Your task to perform on an android device: Show the shopping cart on costco. Add usb-b to the cart on costco Image 0: 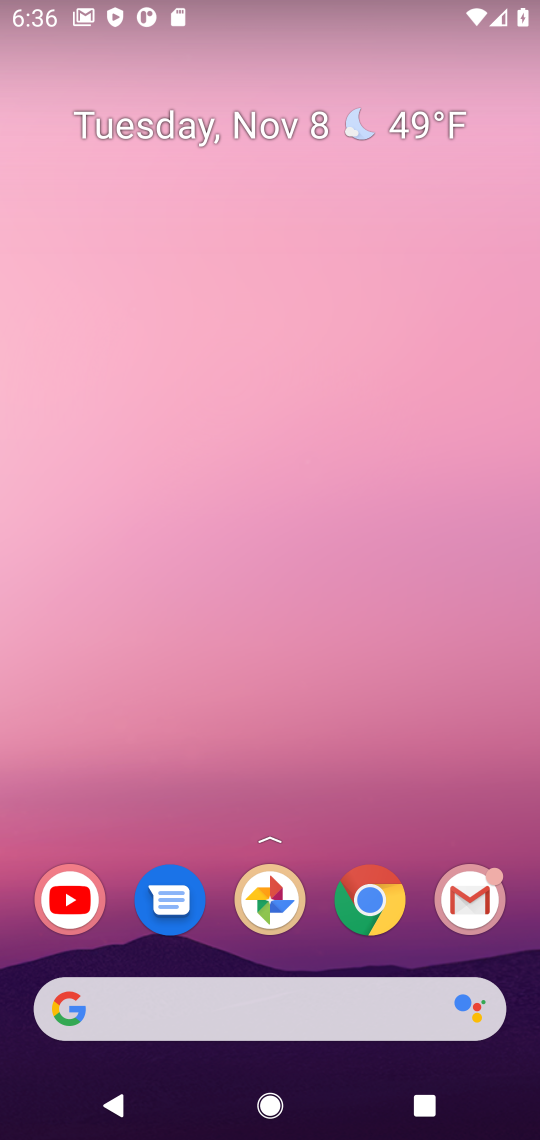
Step 0: click (323, 713)
Your task to perform on an android device: Show the shopping cart on costco. Add usb-b to the cart on costco Image 1: 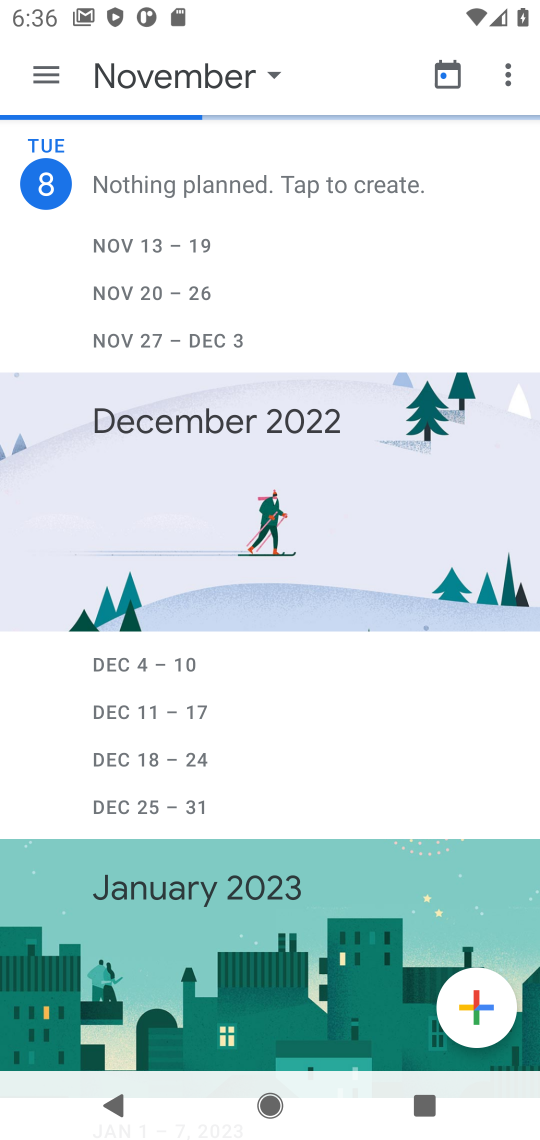
Step 1: click (387, 916)
Your task to perform on an android device: Show the shopping cart on costco. Add usb-b to the cart on costco Image 2: 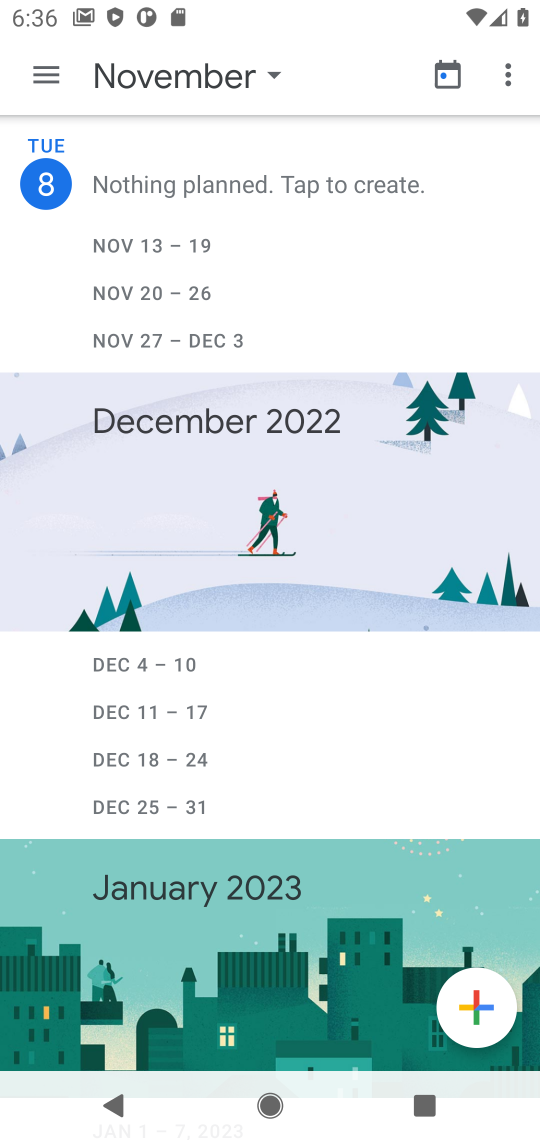
Step 2: press home button
Your task to perform on an android device: Show the shopping cart on costco. Add usb-b to the cart on costco Image 3: 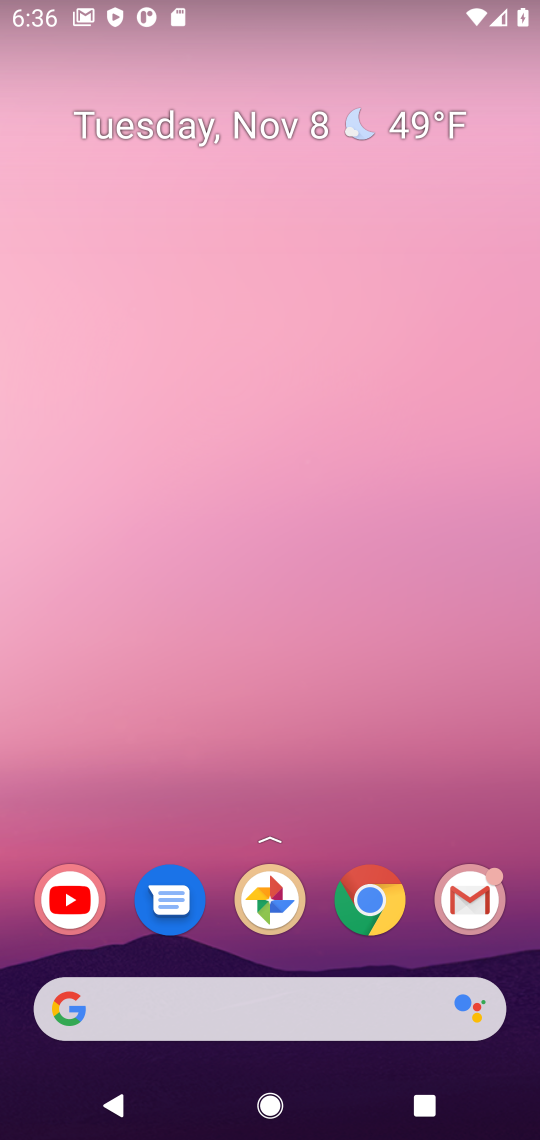
Step 3: click (392, 902)
Your task to perform on an android device: Show the shopping cart on costco. Add usb-b to the cart on costco Image 4: 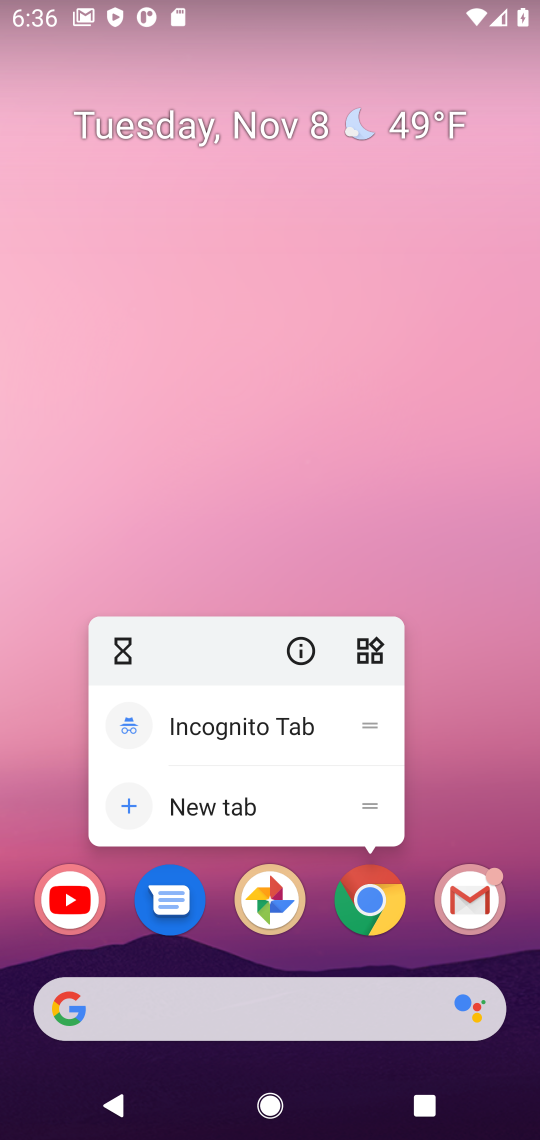
Step 4: click (373, 900)
Your task to perform on an android device: Show the shopping cart on costco. Add usb-b to the cart on costco Image 5: 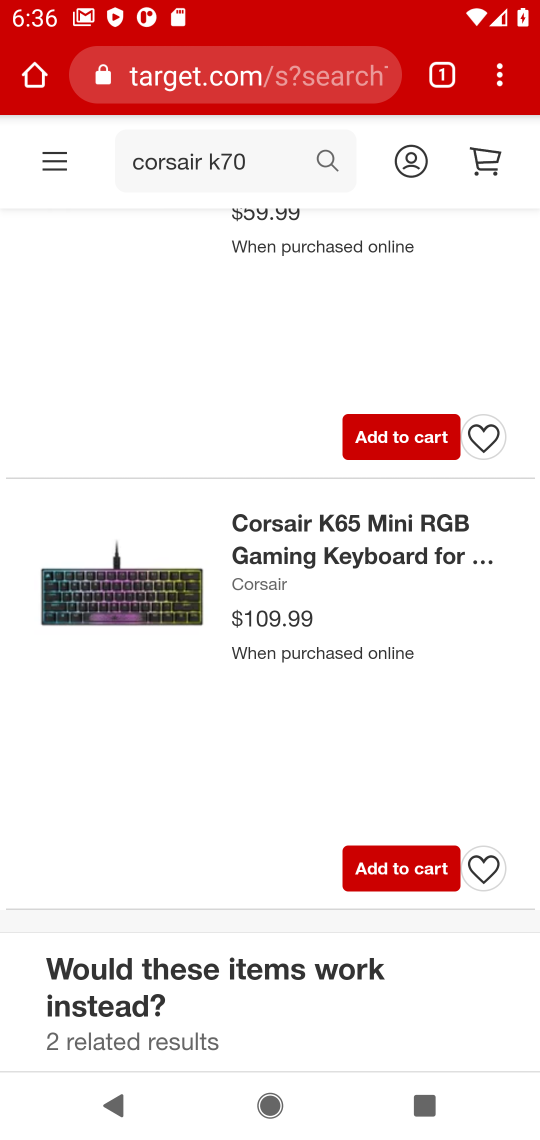
Step 5: click (279, 85)
Your task to perform on an android device: Show the shopping cart on costco. Add usb-b to the cart on costco Image 6: 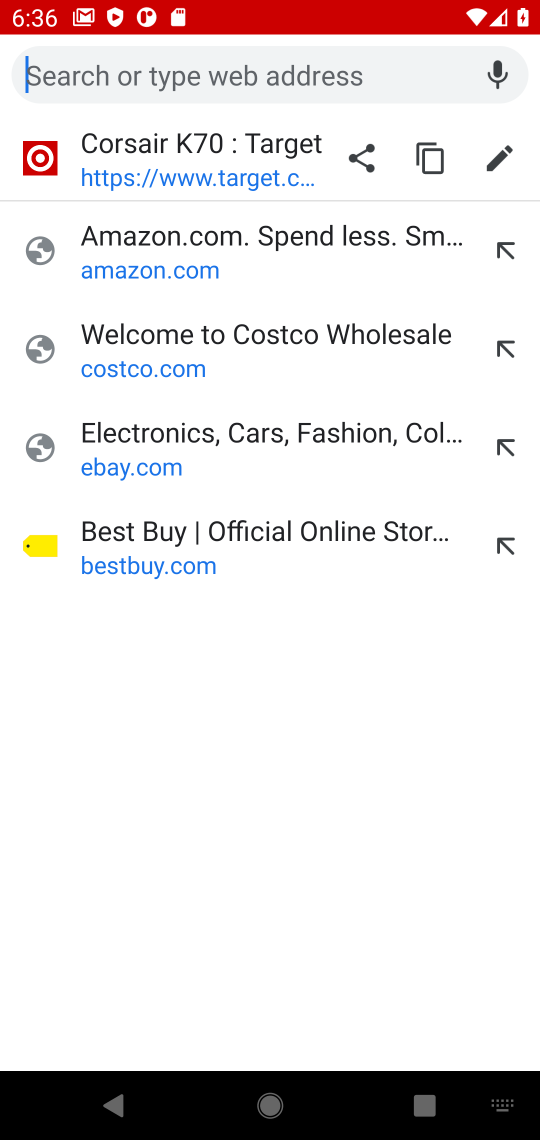
Step 6: type "costco"
Your task to perform on an android device: Show the shopping cart on costco. Add usb-b to the cart on costco Image 7: 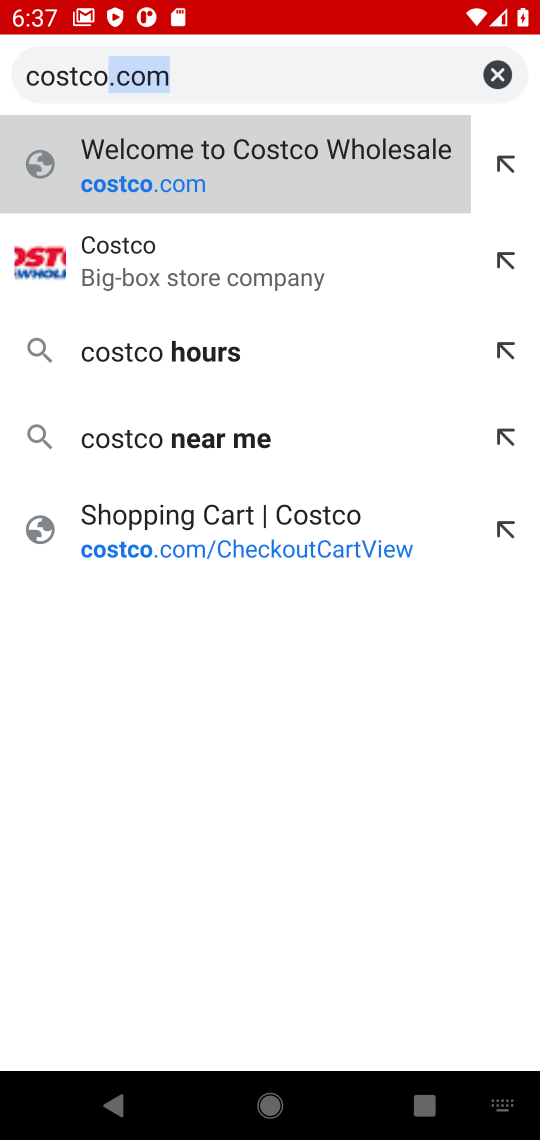
Step 7: press enter
Your task to perform on an android device: Show the shopping cart on costco. Add usb-b to the cart on costco Image 8: 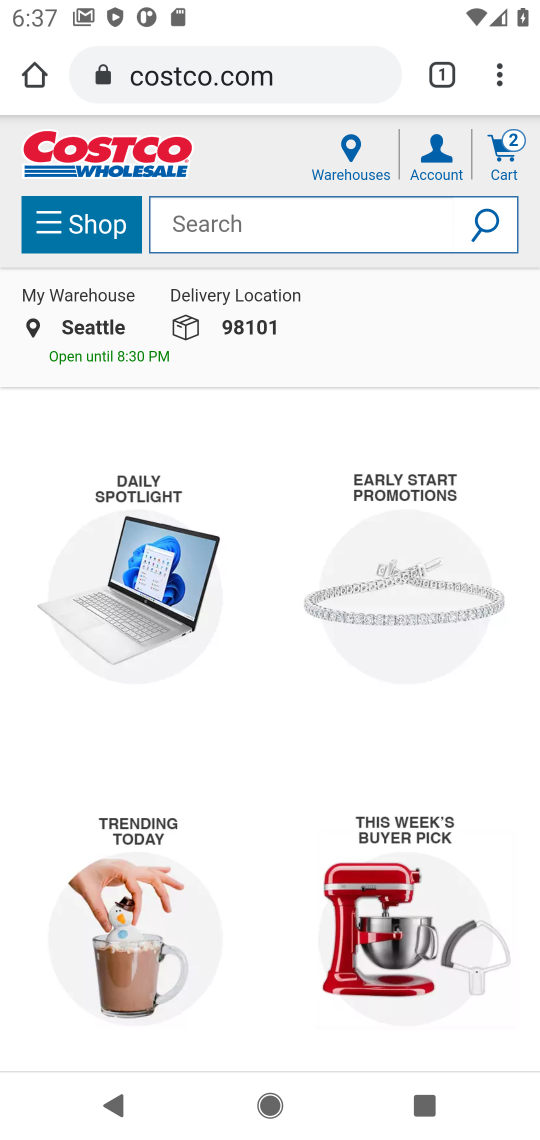
Step 8: click (496, 152)
Your task to perform on an android device: Show the shopping cart on costco. Add usb-b to the cart on costco Image 9: 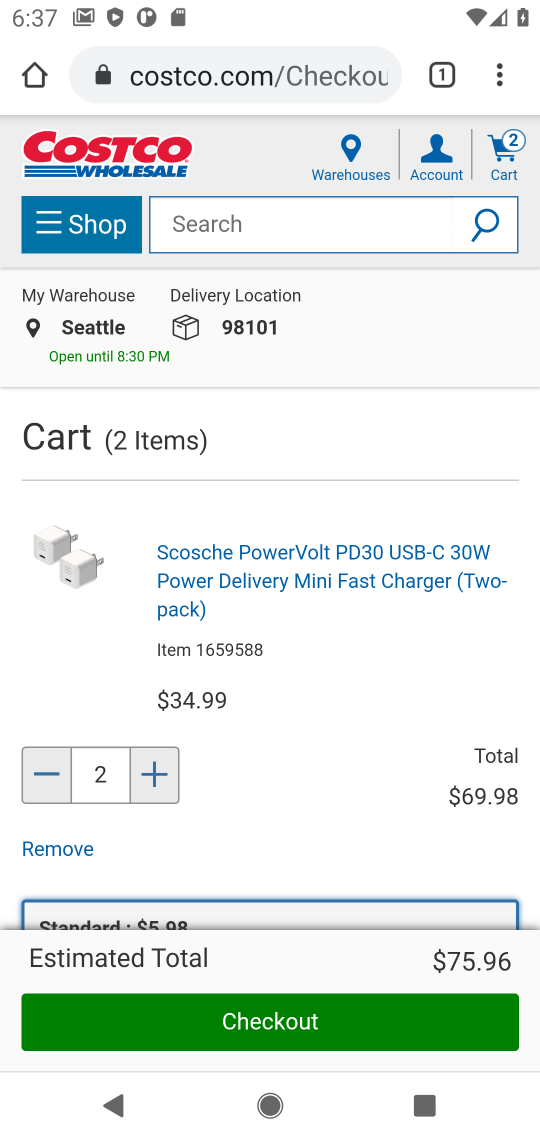
Step 9: click (496, 152)
Your task to perform on an android device: Show the shopping cart on costco. Add usb-b to the cart on costco Image 10: 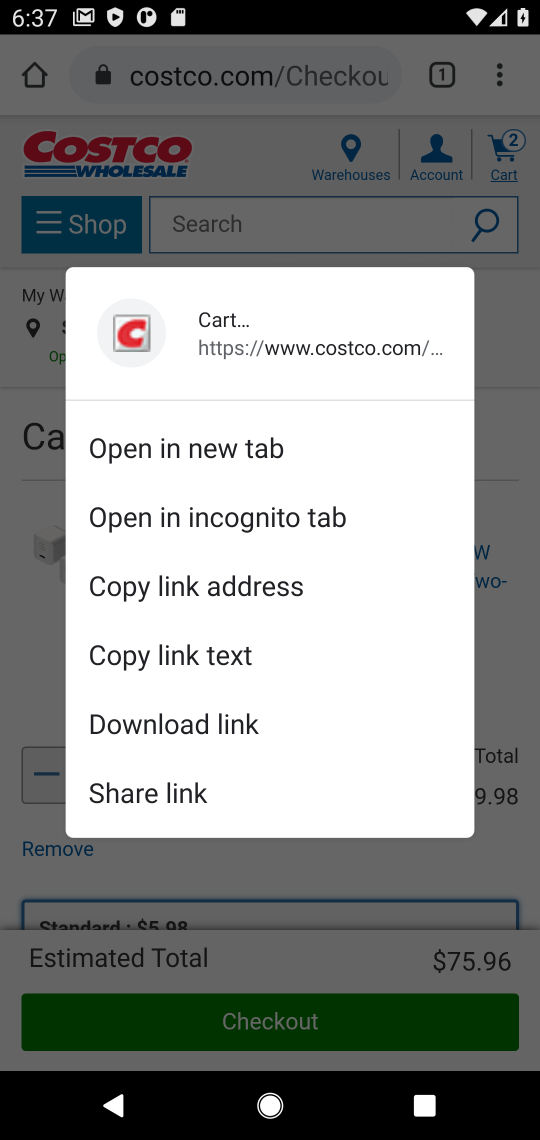
Step 10: click (501, 246)
Your task to perform on an android device: Show the shopping cart on costco. Add usb-b to the cart on costco Image 11: 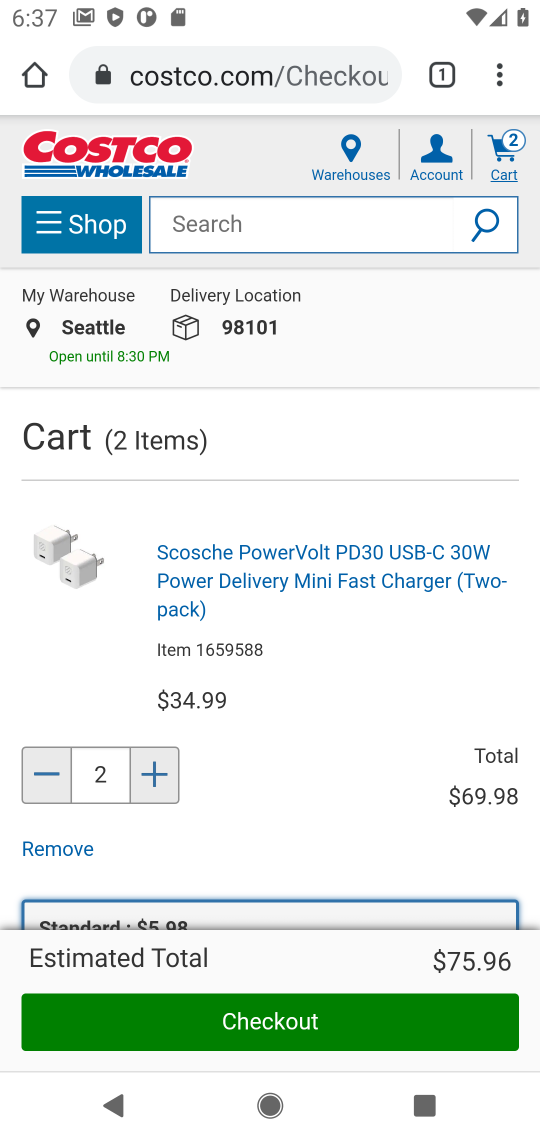
Step 11: click (217, 215)
Your task to perform on an android device: Show the shopping cart on costco. Add usb-b to the cart on costco Image 12: 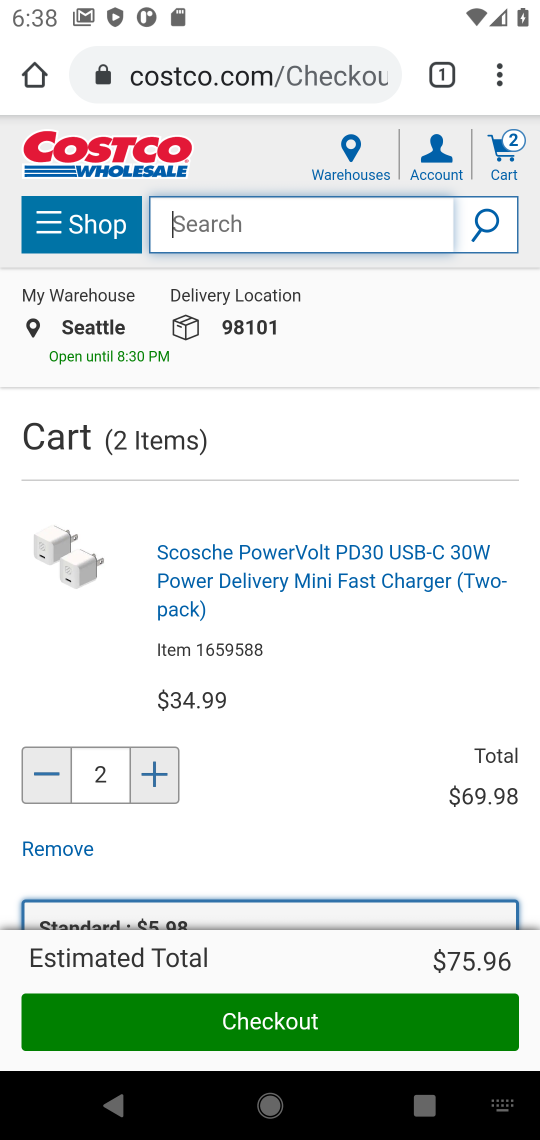
Step 12: type "usb-b"
Your task to perform on an android device: Show the shopping cart on costco. Add usb-b to the cart on costco Image 13: 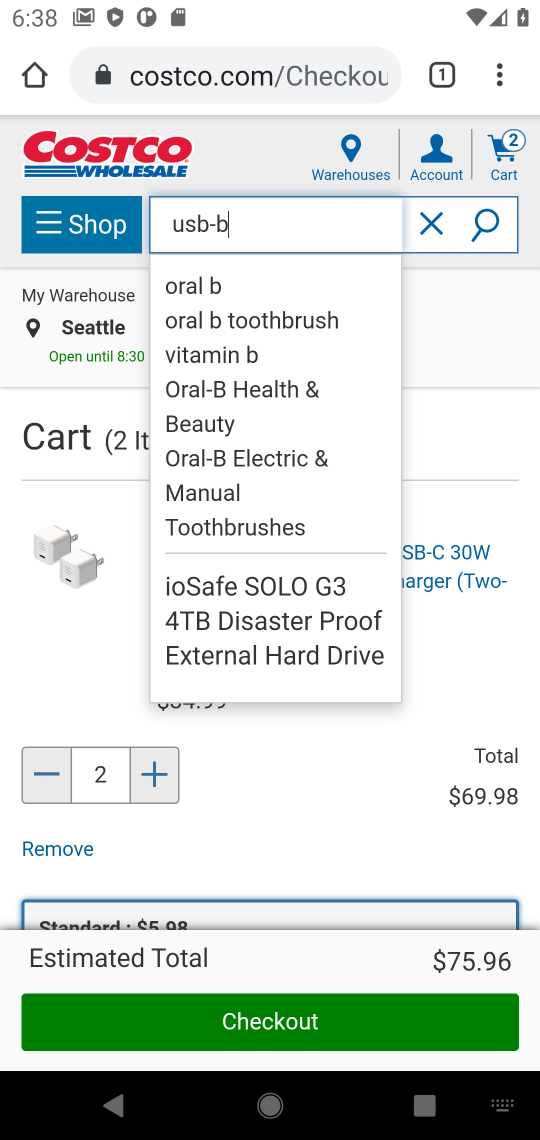
Step 13: press enter
Your task to perform on an android device: Show the shopping cart on costco. Add usb-b to the cart on costco Image 14: 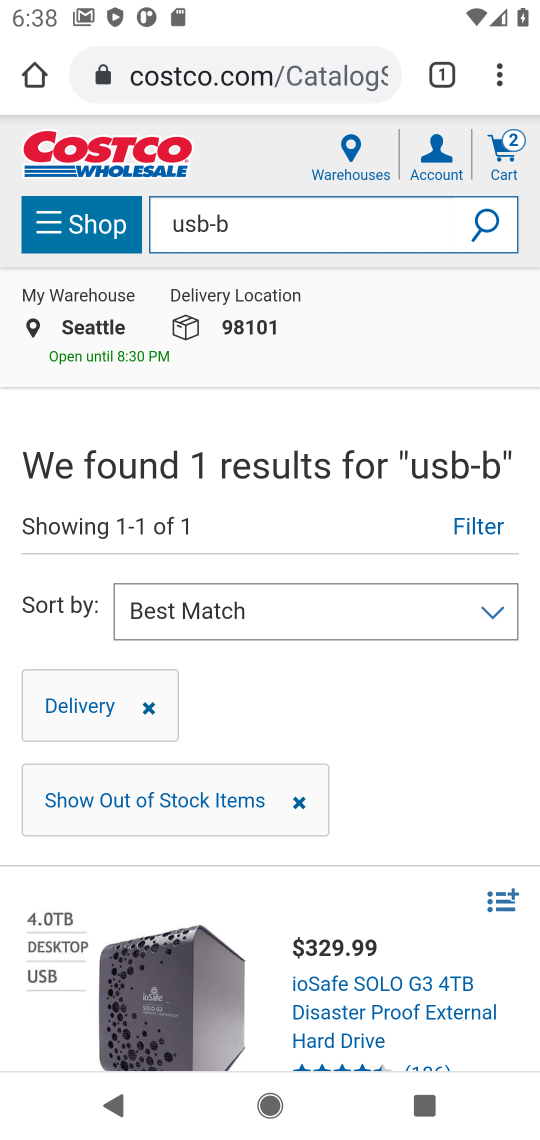
Step 14: task complete